Your task to perform on an android device: Open calendar and show me the fourth week of next month Image 0: 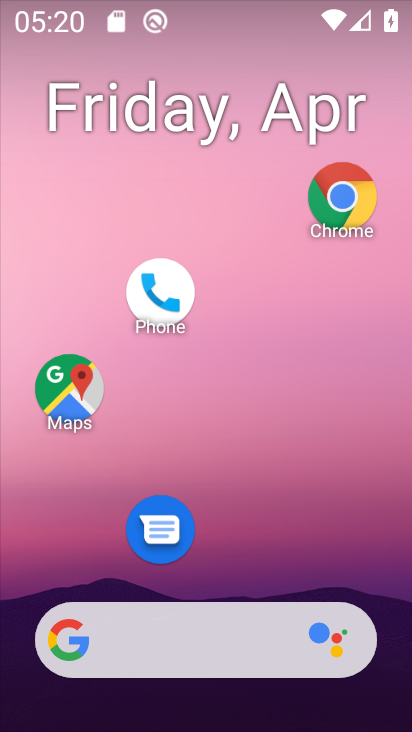
Step 0: drag from (257, 327) to (263, 98)
Your task to perform on an android device: Open calendar and show me the fourth week of next month Image 1: 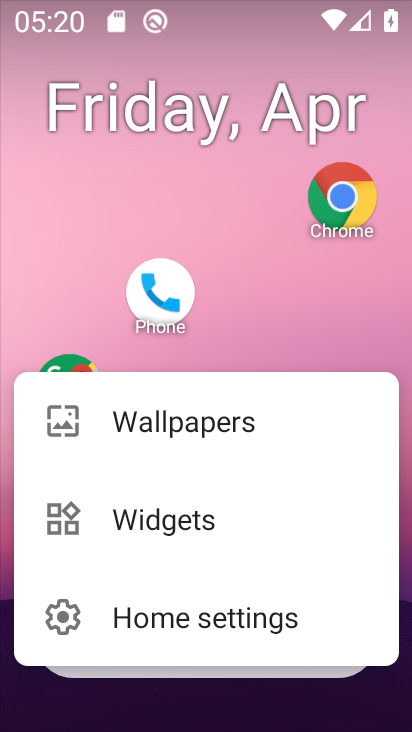
Step 1: click (259, 294)
Your task to perform on an android device: Open calendar and show me the fourth week of next month Image 2: 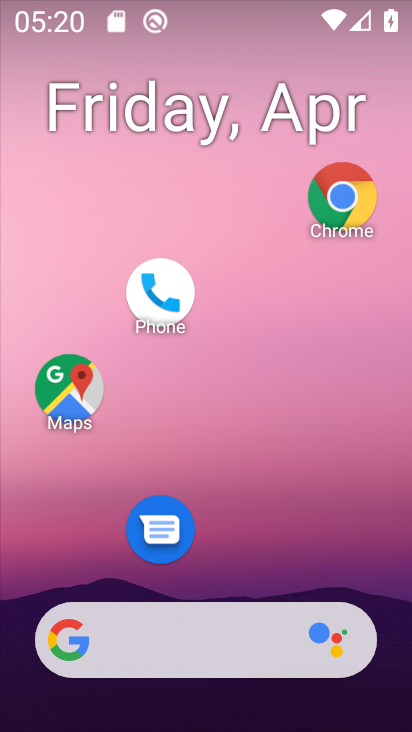
Step 2: drag from (231, 573) to (226, 74)
Your task to perform on an android device: Open calendar and show me the fourth week of next month Image 3: 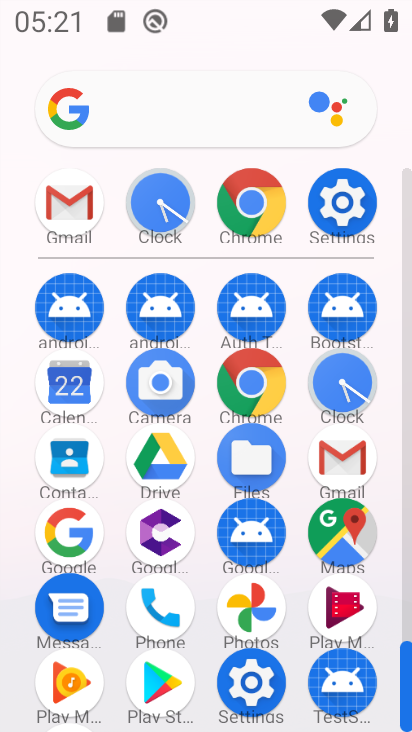
Step 3: click (70, 379)
Your task to perform on an android device: Open calendar and show me the fourth week of next month Image 4: 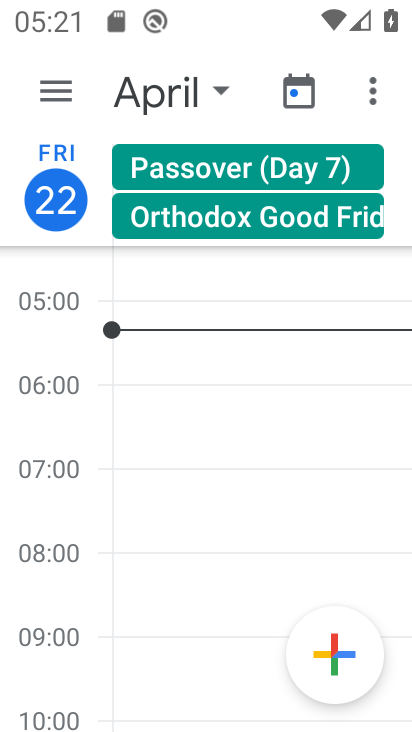
Step 4: click (54, 93)
Your task to perform on an android device: Open calendar and show me the fourth week of next month Image 5: 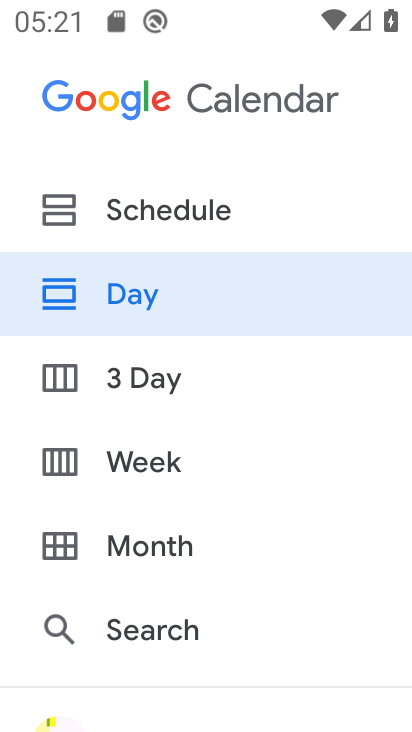
Step 5: click (91, 459)
Your task to perform on an android device: Open calendar and show me the fourth week of next month Image 6: 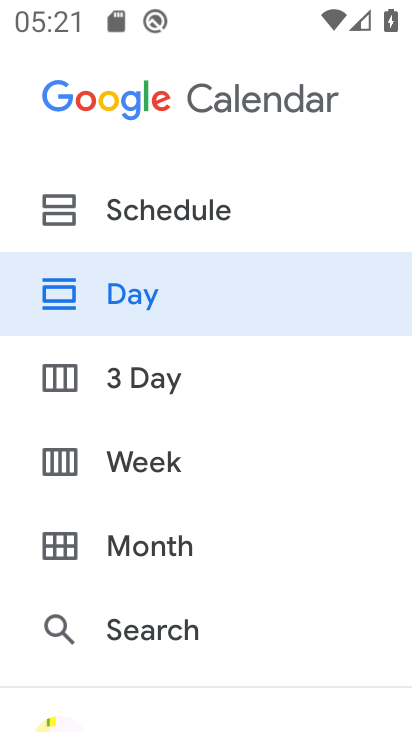
Step 6: click (93, 457)
Your task to perform on an android device: Open calendar and show me the fourth week of next month Image 7: 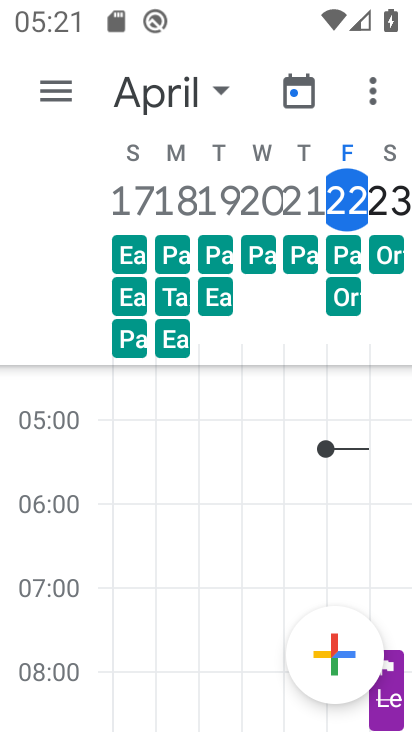
Step 7: drag from (382, 192) to (44, 217)
Your task to perform on an android device: Open calendar and show me the fourth week of next month Image 8: 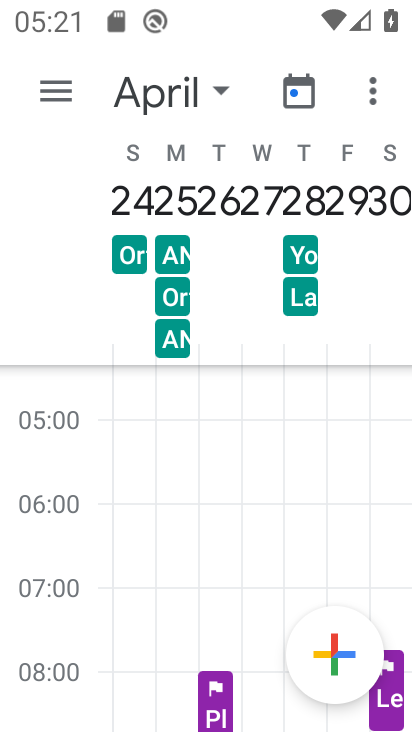
Step 8: drag from (398, 196) to (47, 221)
Your task to perform on an android device: Open calendar and show me the fourth week of next month Image 9: 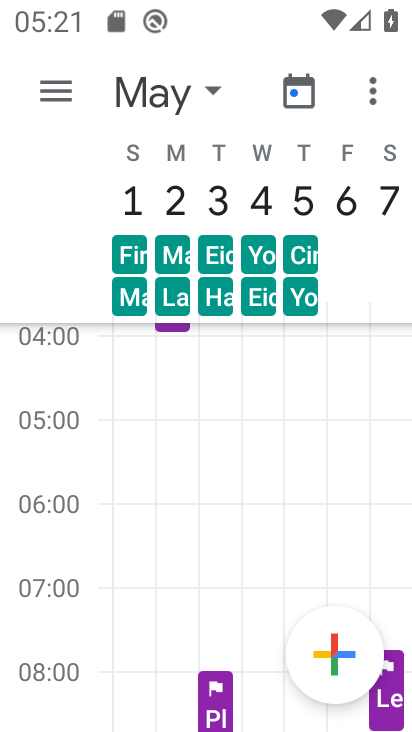
Step 9: drag from (382, 195) to (21, 209)
Your task to perform on an android device: Open calendar and show me the fourth week of next month Image 10: 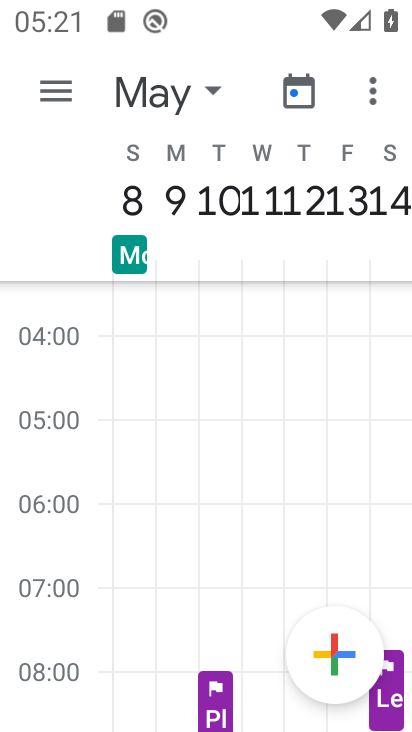
Step 10: drag from (390, 198) to (4, 239)
Your task to perform on an android device: Open calendar and show me the fourth week of next month Image 11: 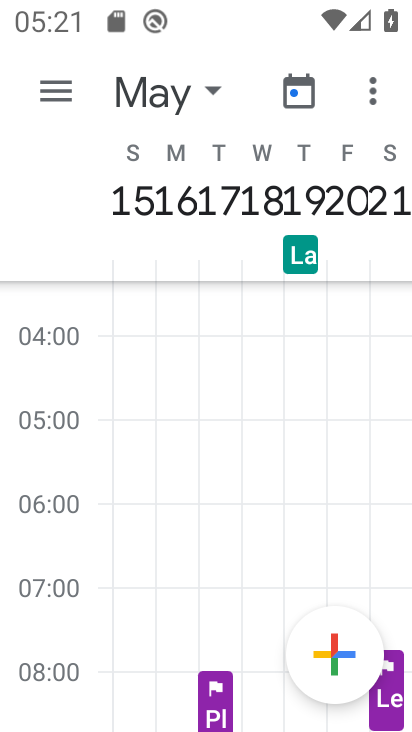
Step 11: drag from (396, 201) to (2, 242)
Your task to perform on an android device: Open calendar and show me the fourth week of next month Image 12: 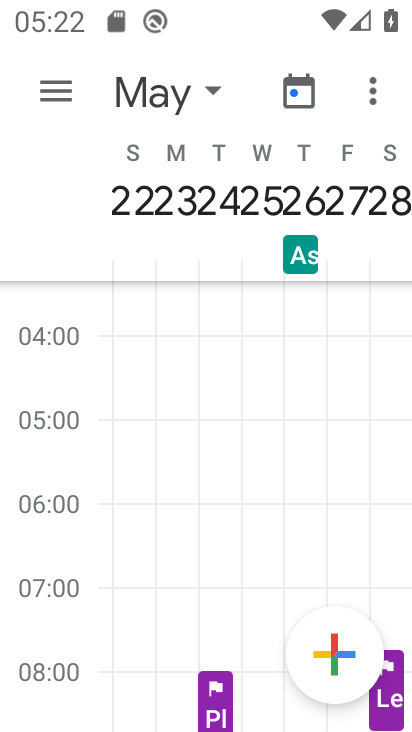
Step 12: click (137, 201)
Your task to perform on an android device: Open calendar and show me the fourth week of next month Image 13: 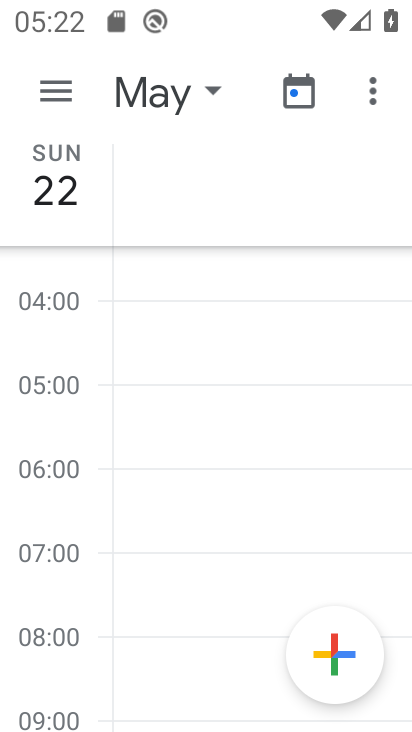
Step 13: click (69, 215)
Your task to perform on an android device: Open calendar and show me the fourth week of next month Image 14: 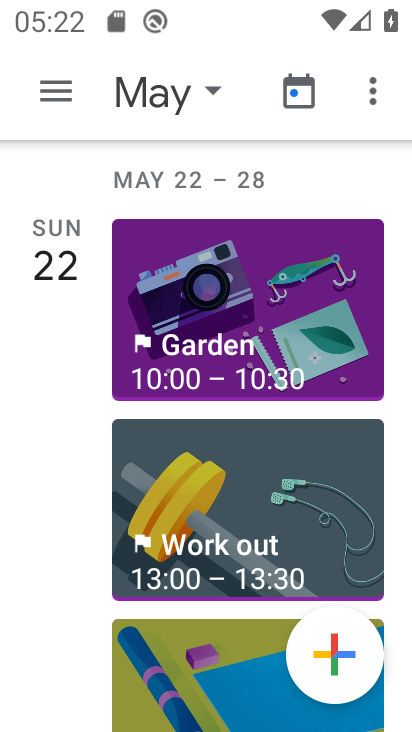
Step 14: task complete